Your task to perform on an android device: add a contact Image 0: 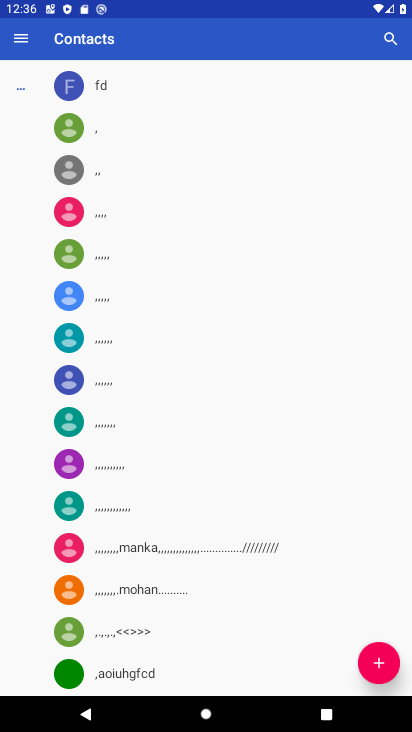
Step 0: click (377, 657)
Your task to perform on an android device: add a contact Image 1: 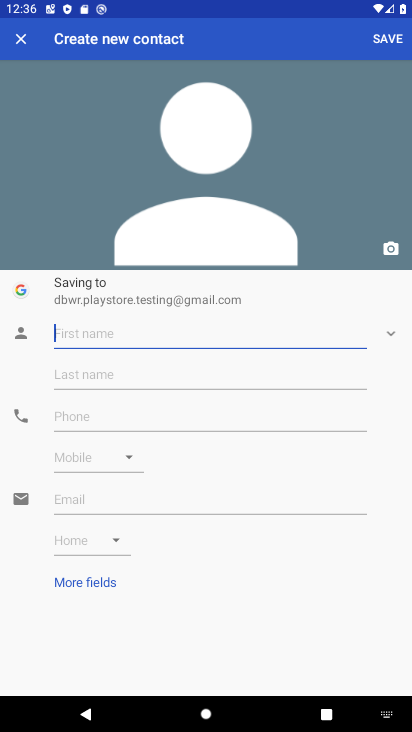
Step 1: click (107, 331)
Your task to perform on an android device: add a contact Image 2: 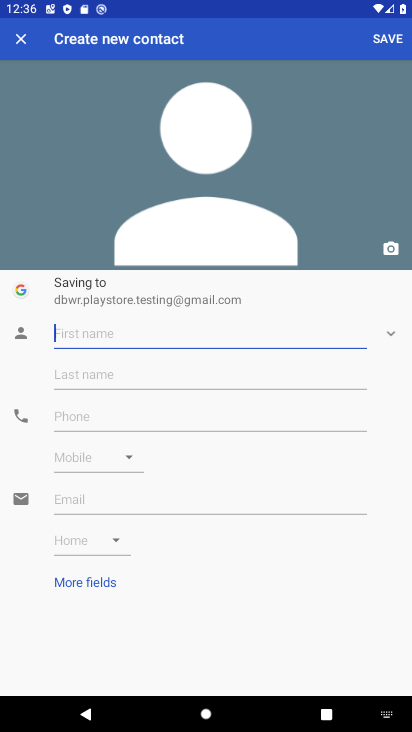
Step 2: type "hghg"
Your task to perform on an android device: add a contact Image 3: 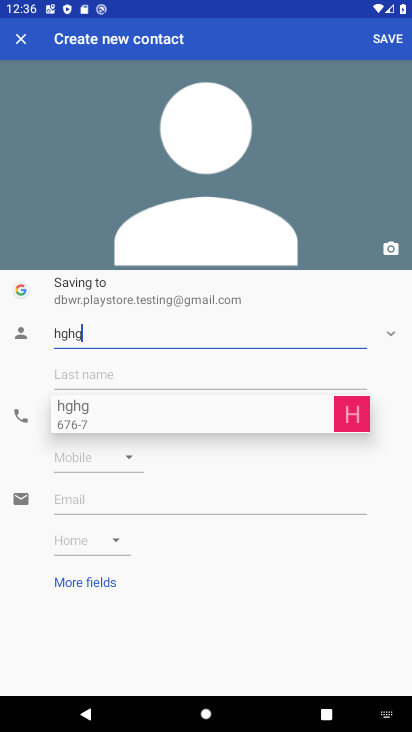
Step 3: click (82, 419)
Your task to perform on an android device: add a contact Image 4: 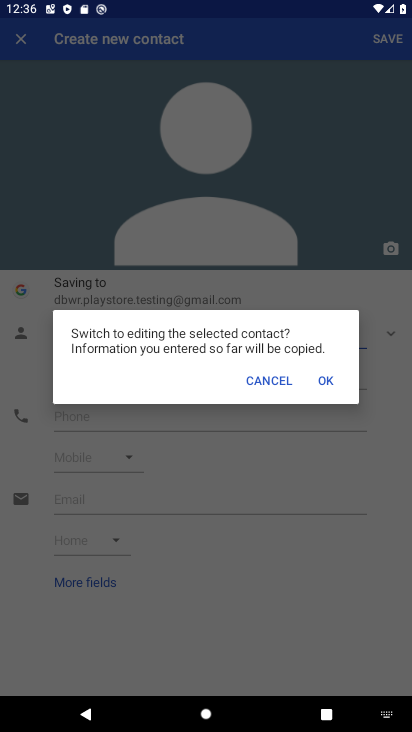
Step 4: click (335, 371)
Your task to perform on an android device: add a contact Image 5: 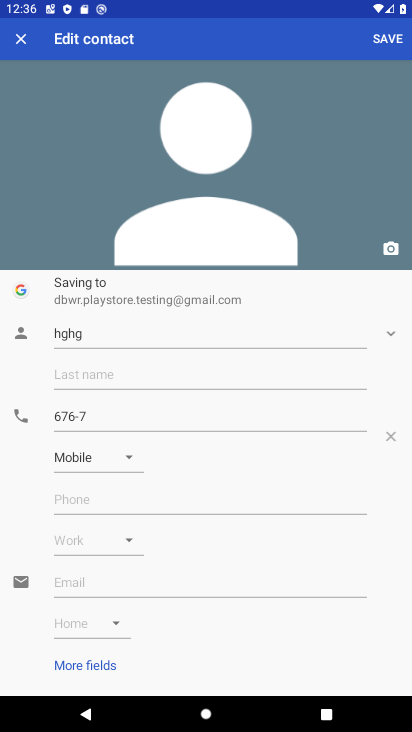
Step 5: click (382, 37)
Your task to perform on an android device: add a contact Image 6: 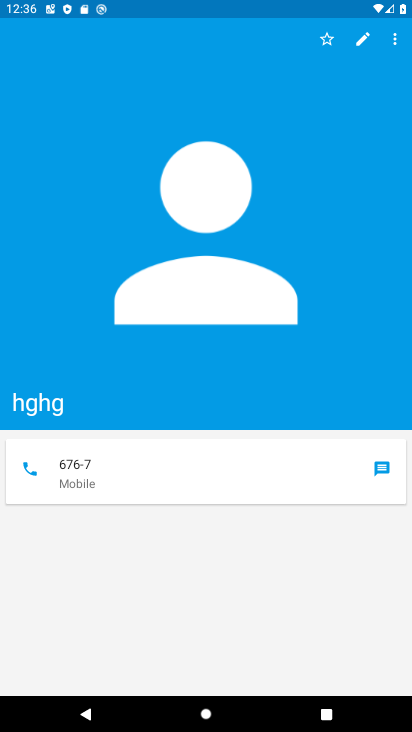
Step 6: task complete